Your task to perform on an android device: toggle pop-ups in chrome Image 0: 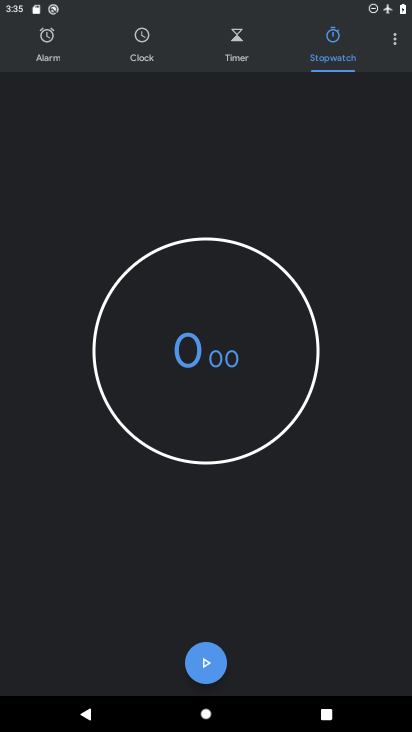
Step 0: press home button
Your task to perform on an android device: toggle pop-ups in chrome Image 1: 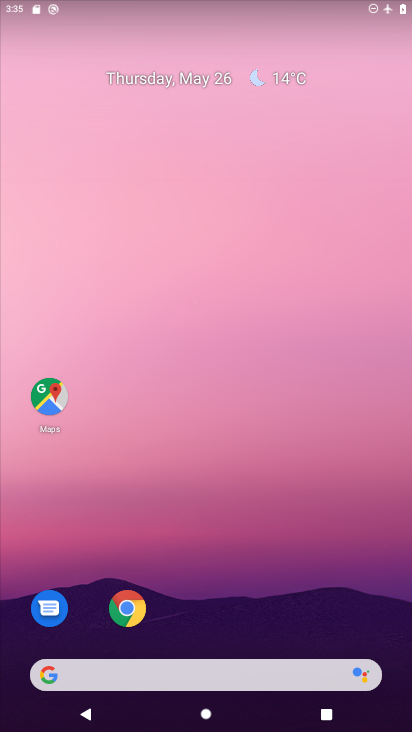
Step 1: drag from (316, 552) to (377, 116)
Your task to perform on an android device: toggle pop-ups in chrome Image 2: 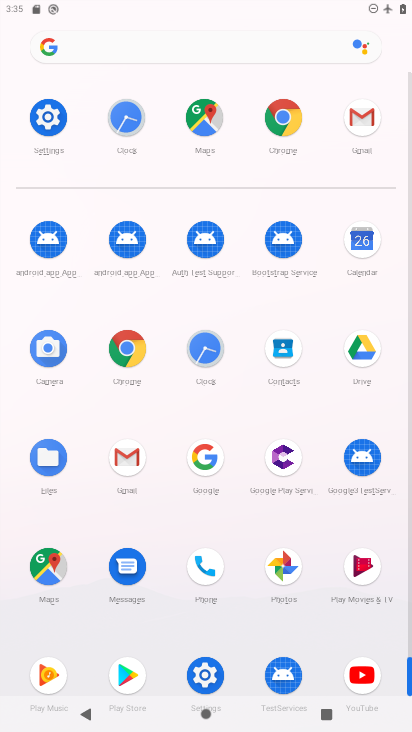
Step 2: click (287, 121)
Your task to perform on an android device: toggle pop-ups in chrome Image 3: 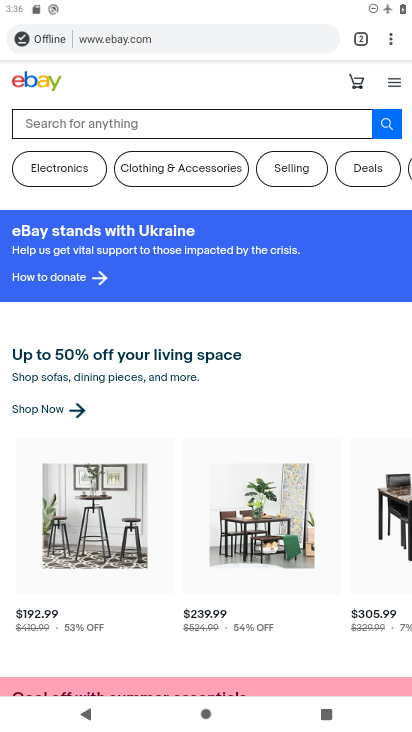
Step 3: drag from (394, 42) to (267, 430)
Your task to perform on an android device: toggle pop-ups in chrome Image 4: 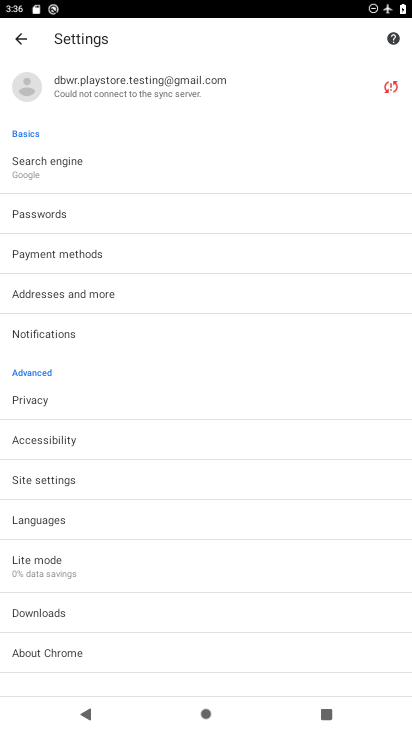
Step 4: click (64, 486)
Your task to perform on an android device: toggle pop-ups in chrome Image 5: 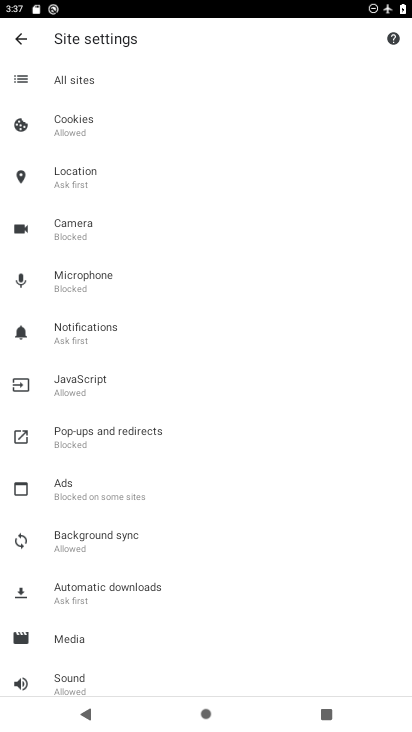
Step 5: click (113, 427)
Your task to perform on an android device: toggle pop-ups in chrome Image 6: 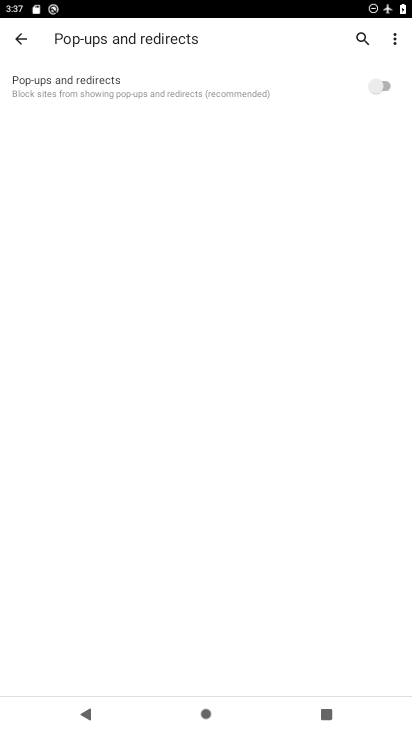
Step 6: click (386, 88)
Your task to perform on an android device: toggle pop-ups in chrome Image 7: 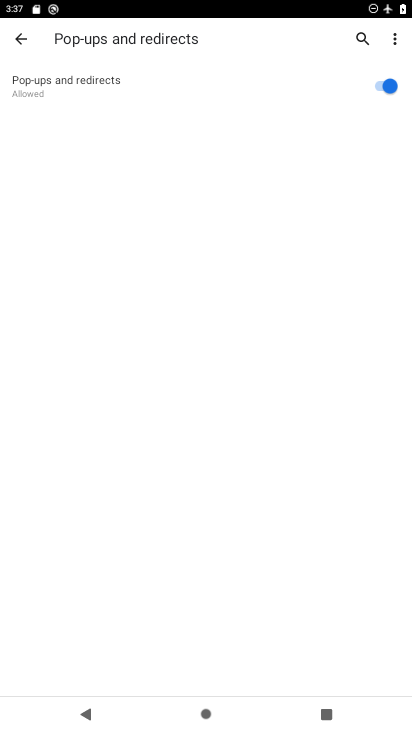
Step 7: task complete